Your task to perform on an android device: Open Wikipedia Image 0: 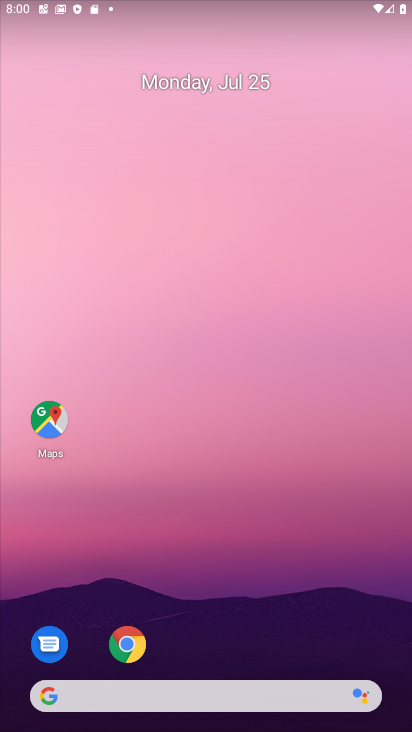
Step 0: drag from (235, 620) to (264, 102)
Your task to perform on an android device: Open Wikipedia Image 1: 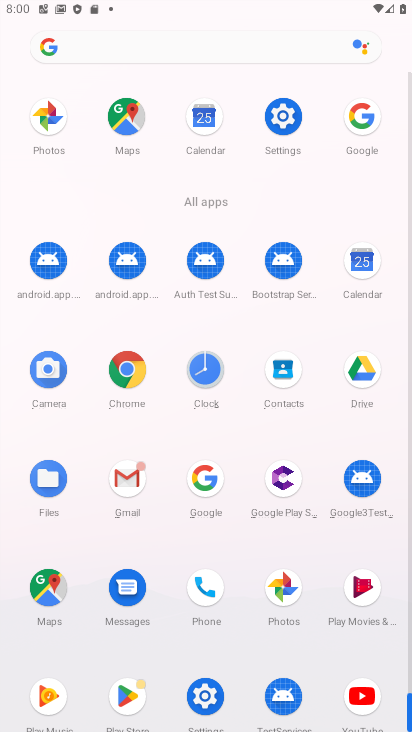
Step 1: click (134, 392)
Your task to perform on an android device: Open Wikipedia Image 2: 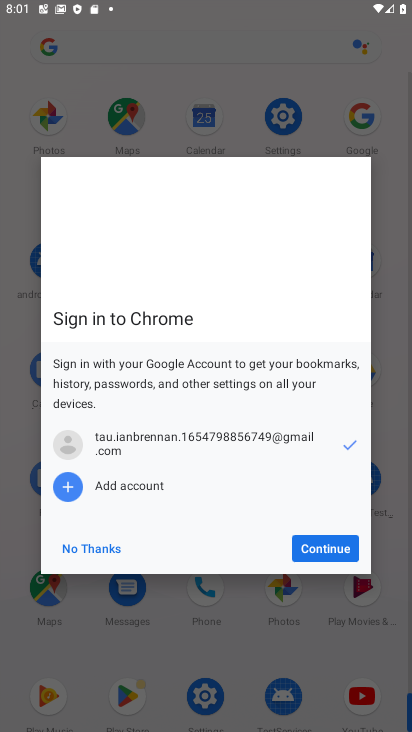
Step 2: click (319, 550)
Your task to perform on an android device: Open Wikipedia Image 3: 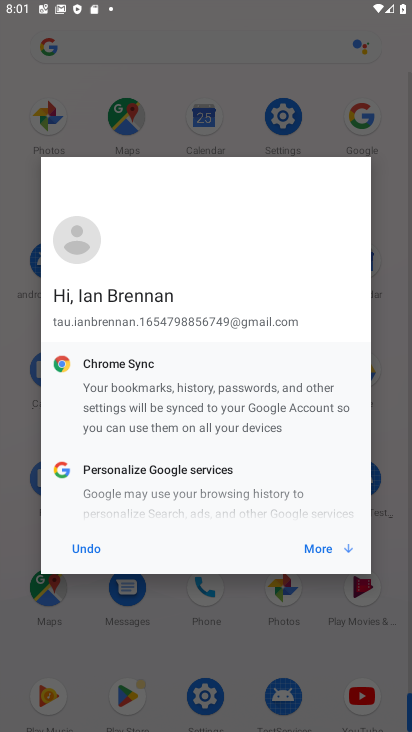
Step 3: click (319, 549)
Your task to perform on an android device: Open Wikipedia Image 4: 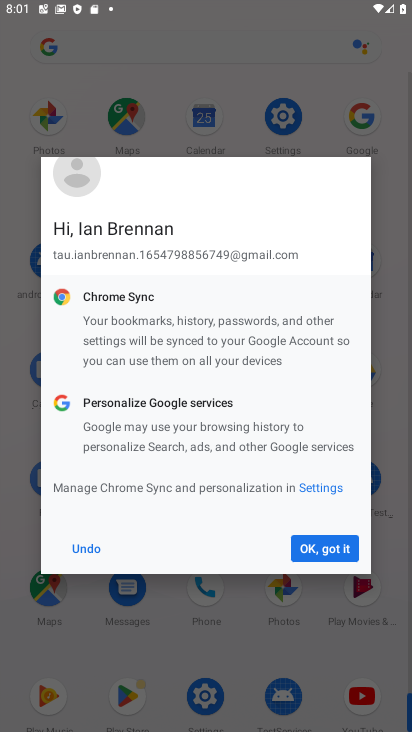
Step 4: click (319, 549)
Your task to perform on an android device: Open Wikipedia Image 5: 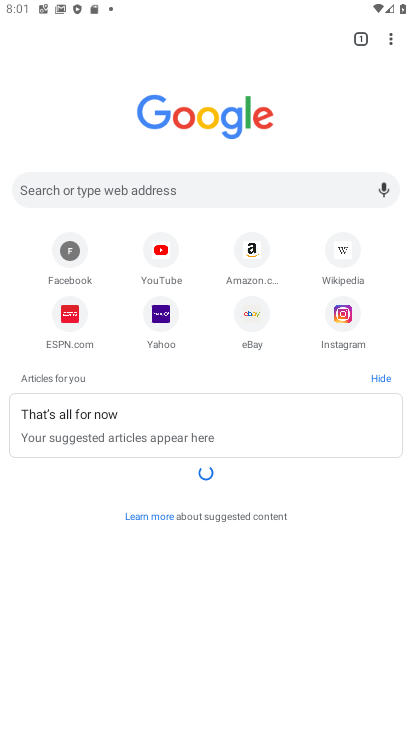
Step 5: click (334, 261)
Your task to perform on an android device: Open Wikipedia Image 6: 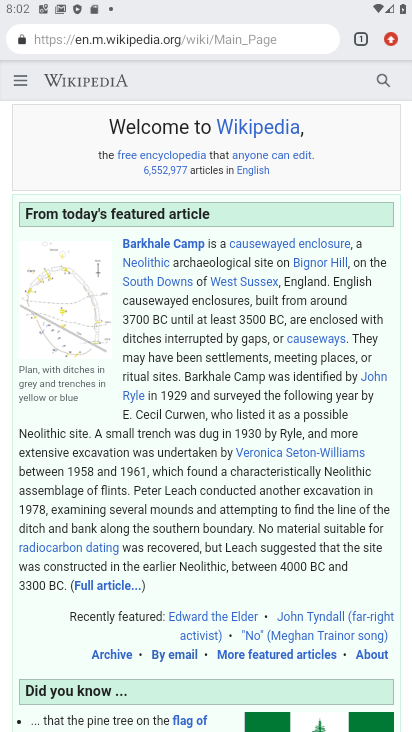
Step 6: task complete